Your task to perform on an android device: change the clock display to digital Image 0: 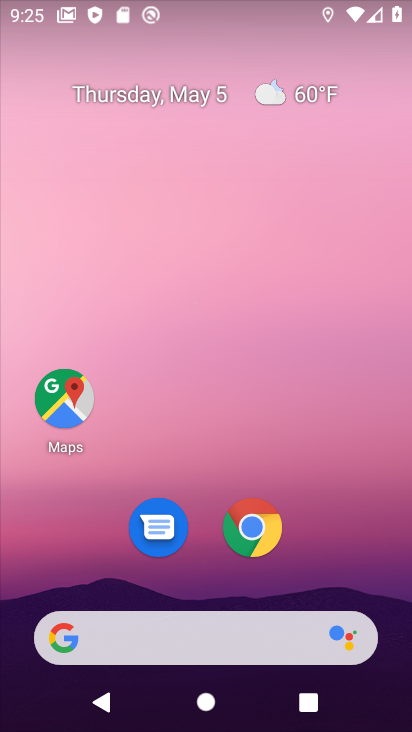
Step 0: drag from (142, 615) to (235, 64)
Your task to perform on an android device: change the clock display to digital Image 1: 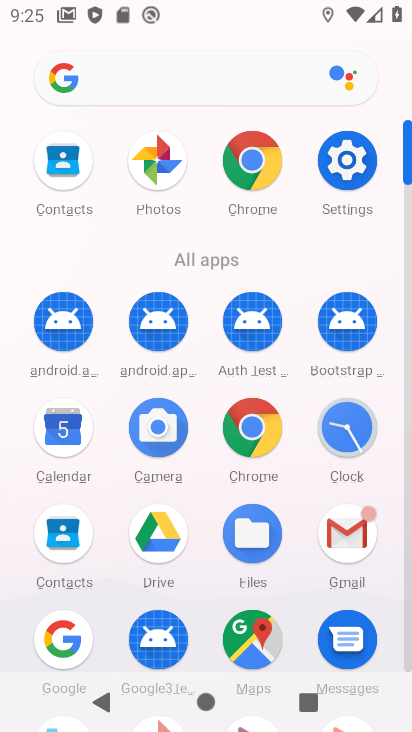
Step 1: click (356, 431)
Your task to perform on an android device: change the clock display to digital Image 2: 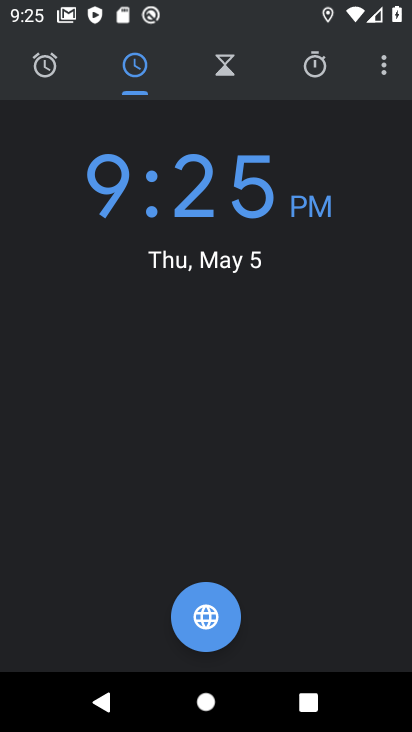
Step 2: click (387, 67)
Your task to perform on an android device: change the clock display to digital Image 3: 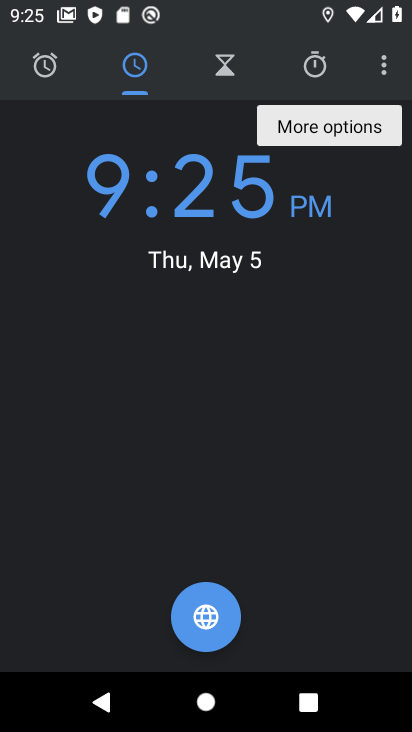
Step 3: click (387, 67)
Your task to perform on an android device: change the clock display to digital Image 4: 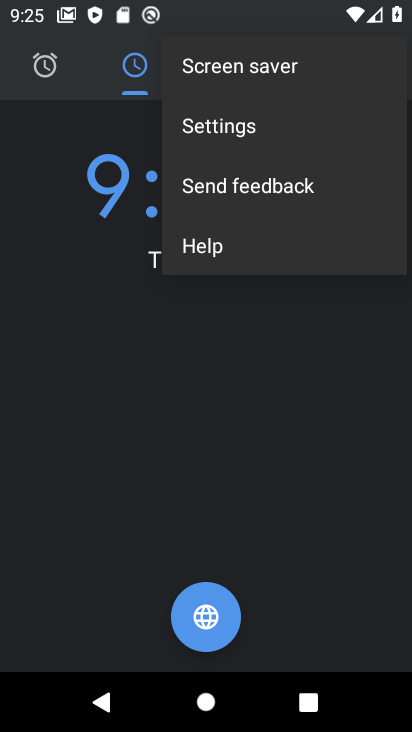
Step 4: click (249, 119)
Your task to perform on an android device: change the clock display to digital Image 5: 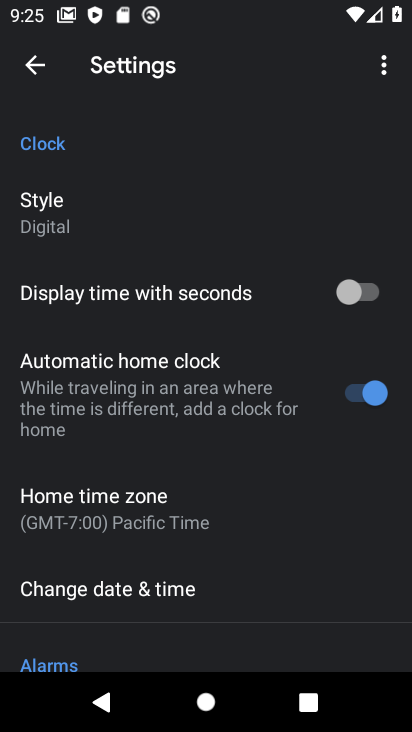
Step 5: task complete